Your task to perform on an android device: search for starred emails in the gmail app Image 0: 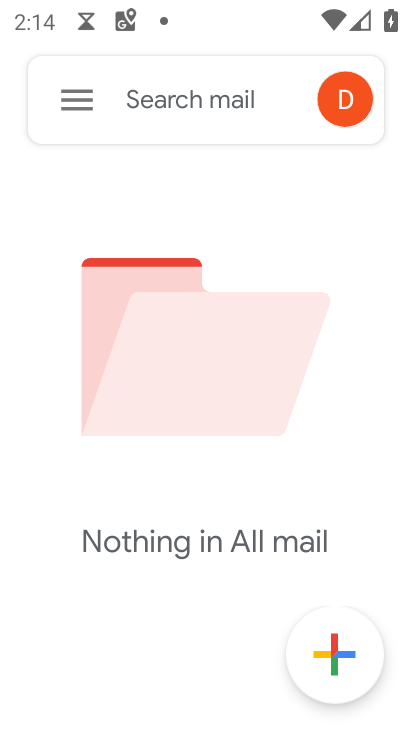
Step 0: click (46, 97)
Your task to perform on an android device: search for starred emails in the gmail app Image 1: 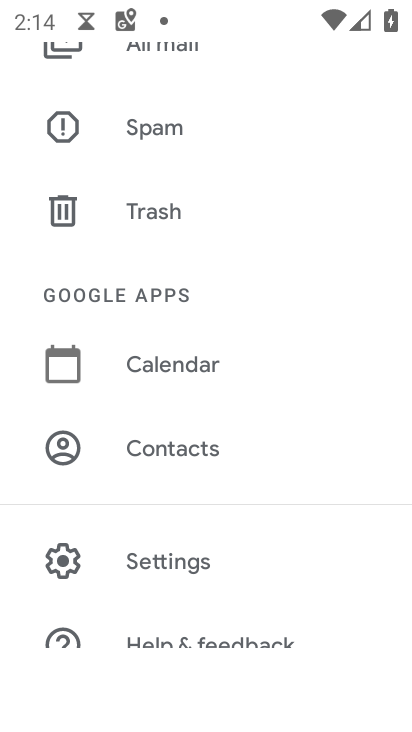
Step 1: drag from (204, 133) to (234, 498)
Your task to perform on an android device: search for starred emails in the gmail app Image 2: 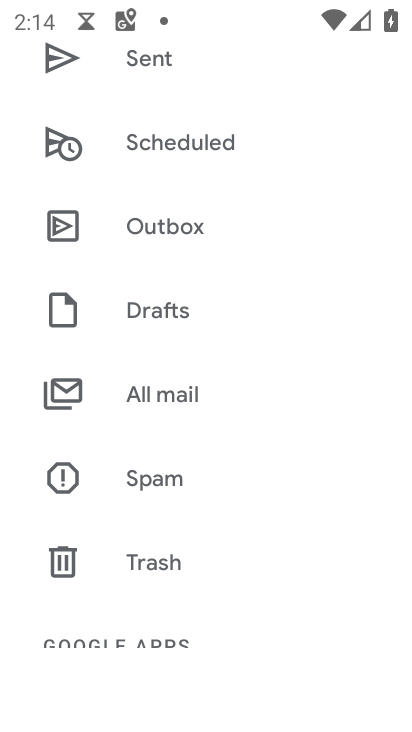
Step 2: drag from (190, 192) to (202, 494)
Your task to perform on an android device: search for starred emails in the gmail app Image 3: 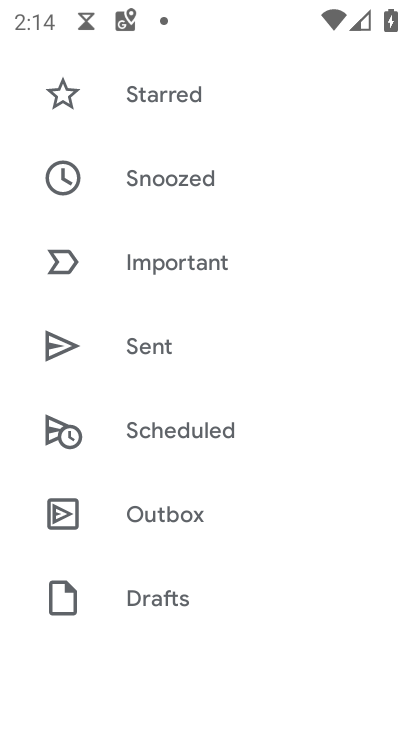
Step 3: click (183, 108)
Your task to perform on an android device: search for starred emails in the gmail app Image 4: 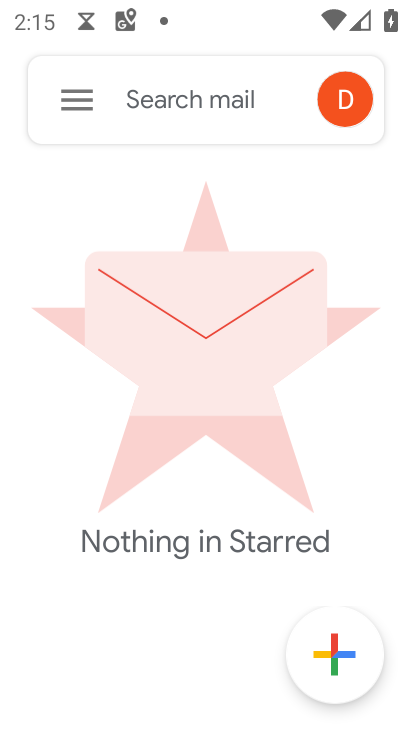
Step 4: task complete